Your task to perform on an android device: turn off javascript in the chrome app Image 0: 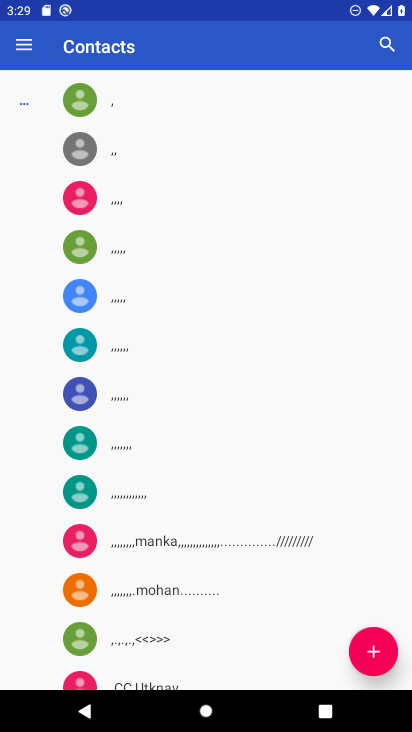
Step 0: press home button
Your task to perform on an android device: turn off javascript in the chrome app Image 1: 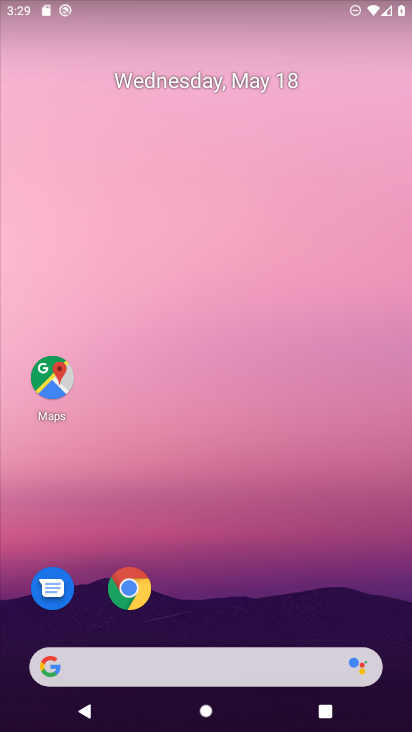
Step 1: click (135, 567)
Your task to perform on an android device: turn off javascript in the chrome app Image 2: 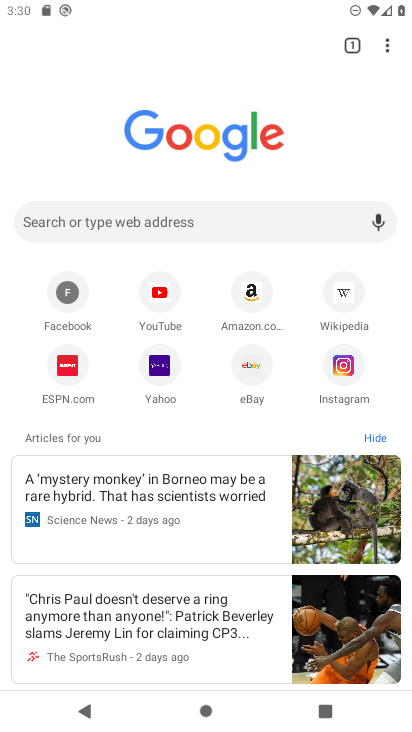
Step 2: click (385, 45)
Your task to perform on an android device: turn off javascript in the chrome app Image 3: 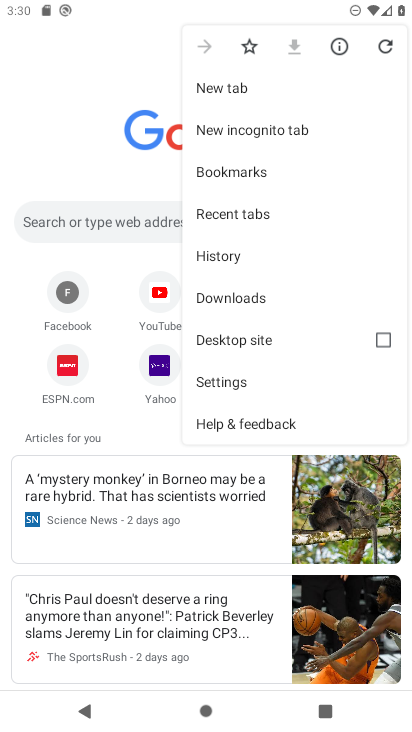
Step 3: click (255, 366)
Your task to perform on an android device: turn off javascript in the chrome app Image 4: 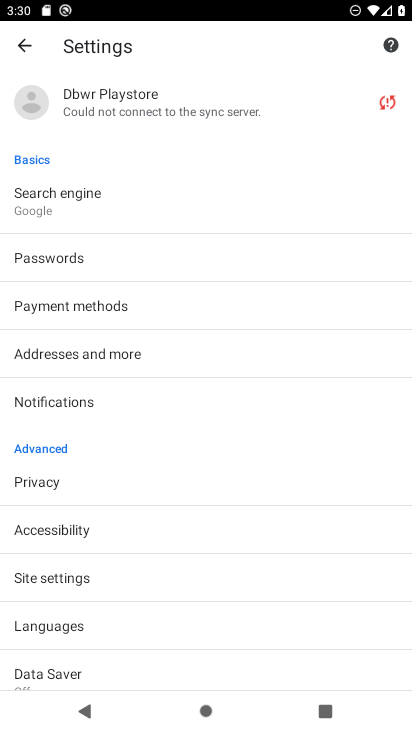
Step 4: click (189, 572)
Your task to perform on an android device: turn off javascript in the chrome app Image 5: 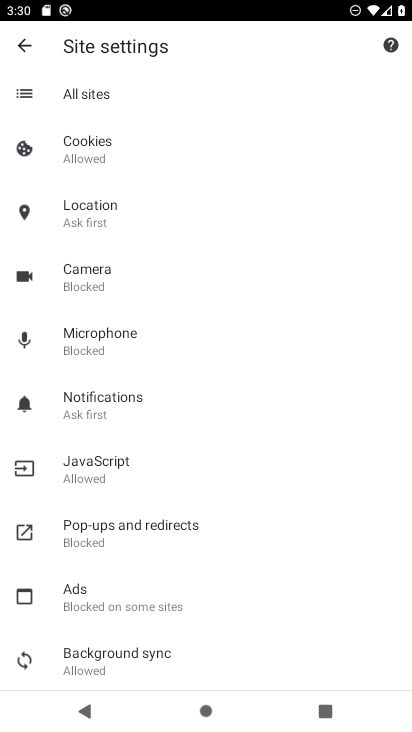
Step 5: click (142, 469)
Your task to perform on an android device: turn off javascript in the chrome app Image 6: 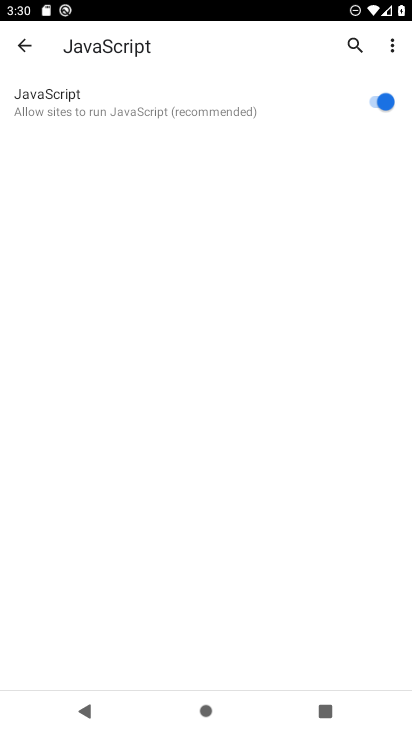
Step 6: click (385, 104)
Your task to perform on an android device: turn off javascript in the chrome app Image 7: 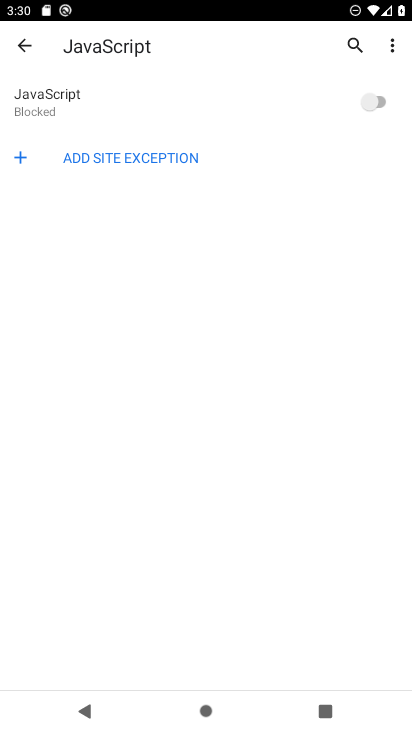
Step 7: task complete